Your task to perform on an android device: Show the shopping cart on costco. Search for lenovo thinkpad on costco, select the first entry, and add it to the cart. Image 0: 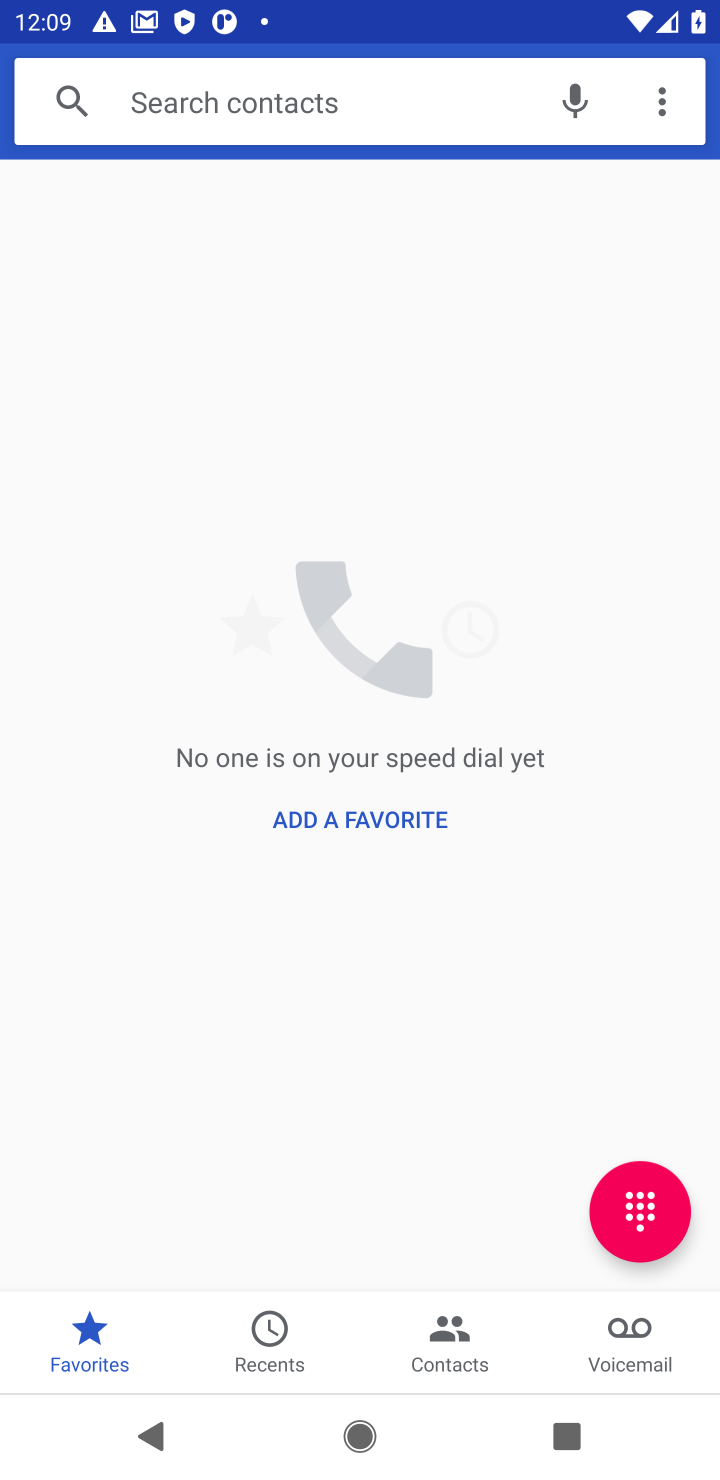
Step 0: press home button
Your task to perform on an android device: Show the shopping cart on costco. Search for lenovo thinkpad on costco, select the first entry, and add it to the cart. Image 1: 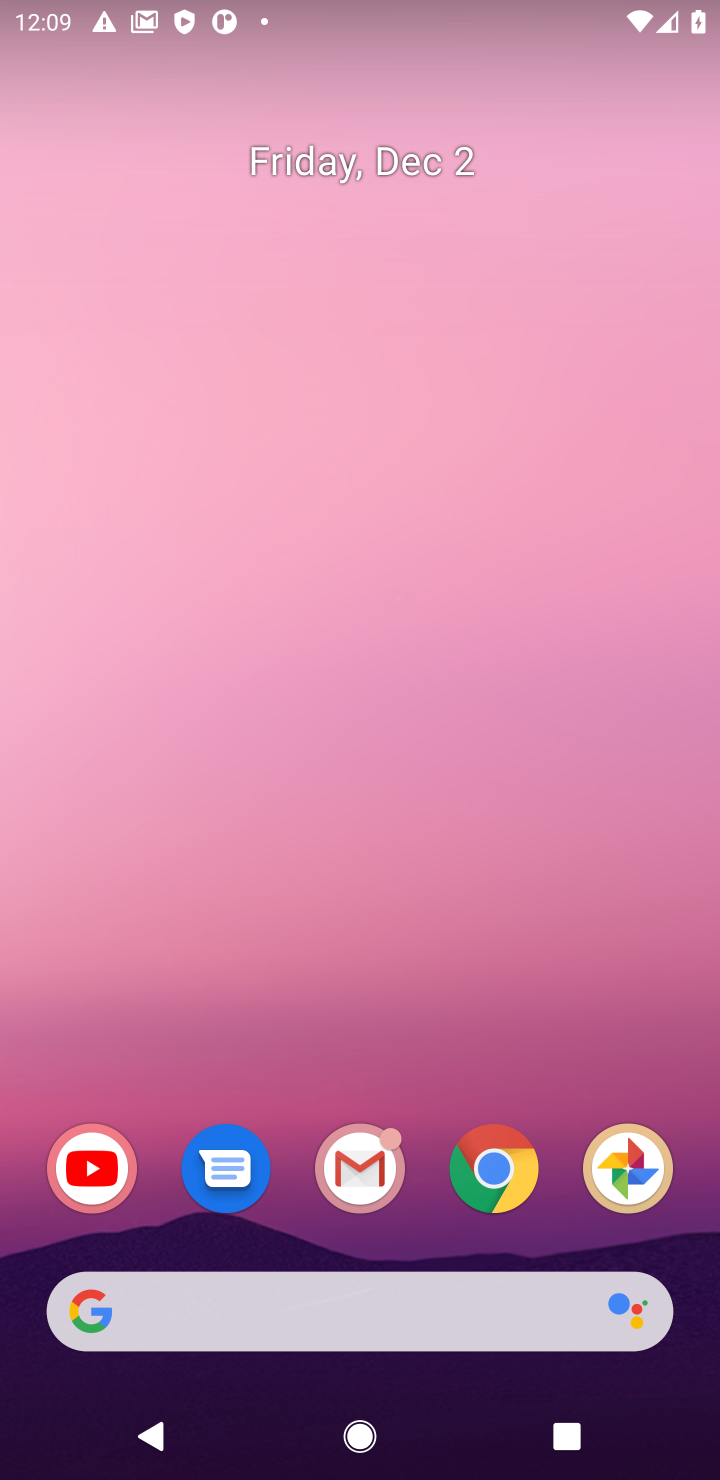
Step 1: click (518, 1168)
Your task to perform on an android device: Show the shopping cart on costco. Search for lenovo thinkpad on costco, select the first entry, and add it to the cart. Image 2: 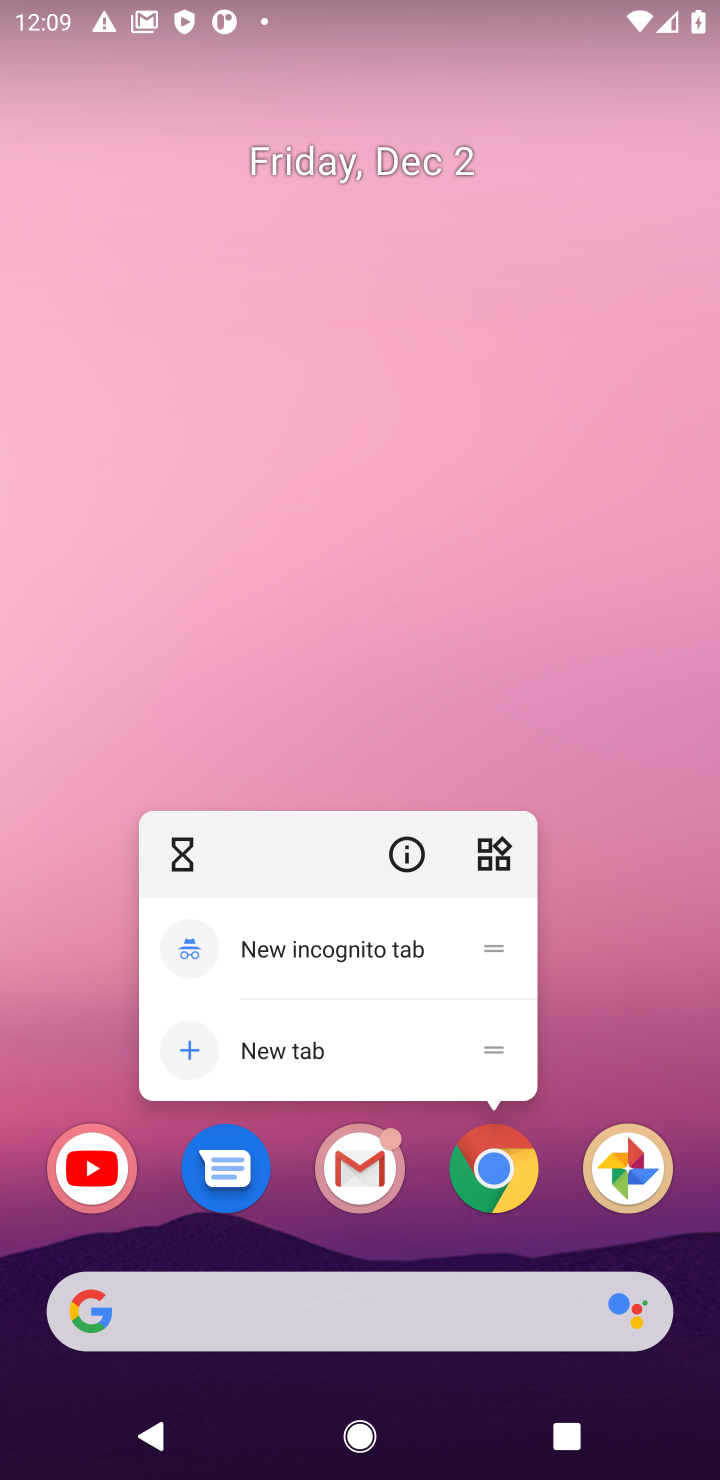
Step 2: click (508, 1170)
Your task to perform on an android device: Show the shopping cart on costco. Search for lenovo thinkpad on costco, select the first entry, and add it to the cart. Image 3: 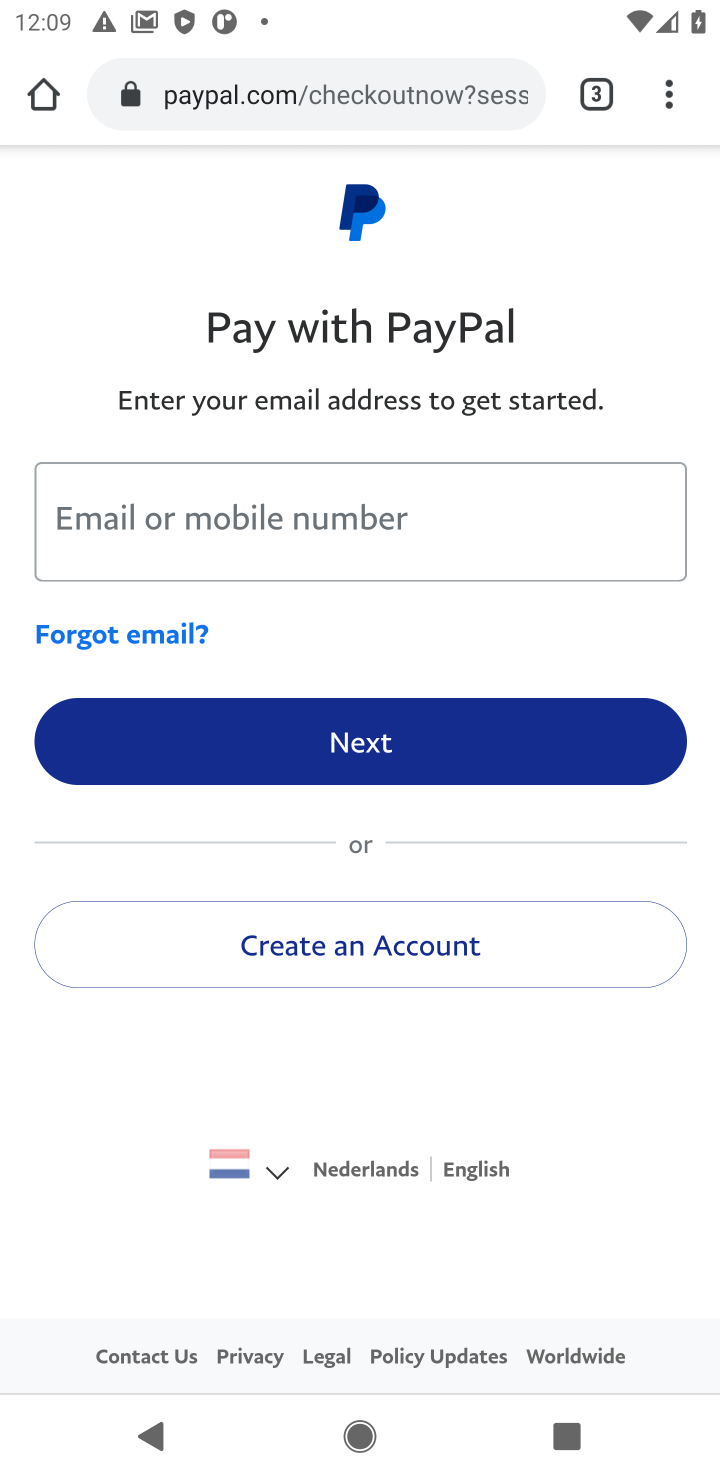
Step 3: click (259, 79)
Your task to perform on an android device: Show the shopping cart on costco. Search for lenovo thinkpad on costco, select the first entry, and add it to the cart. Image 4: 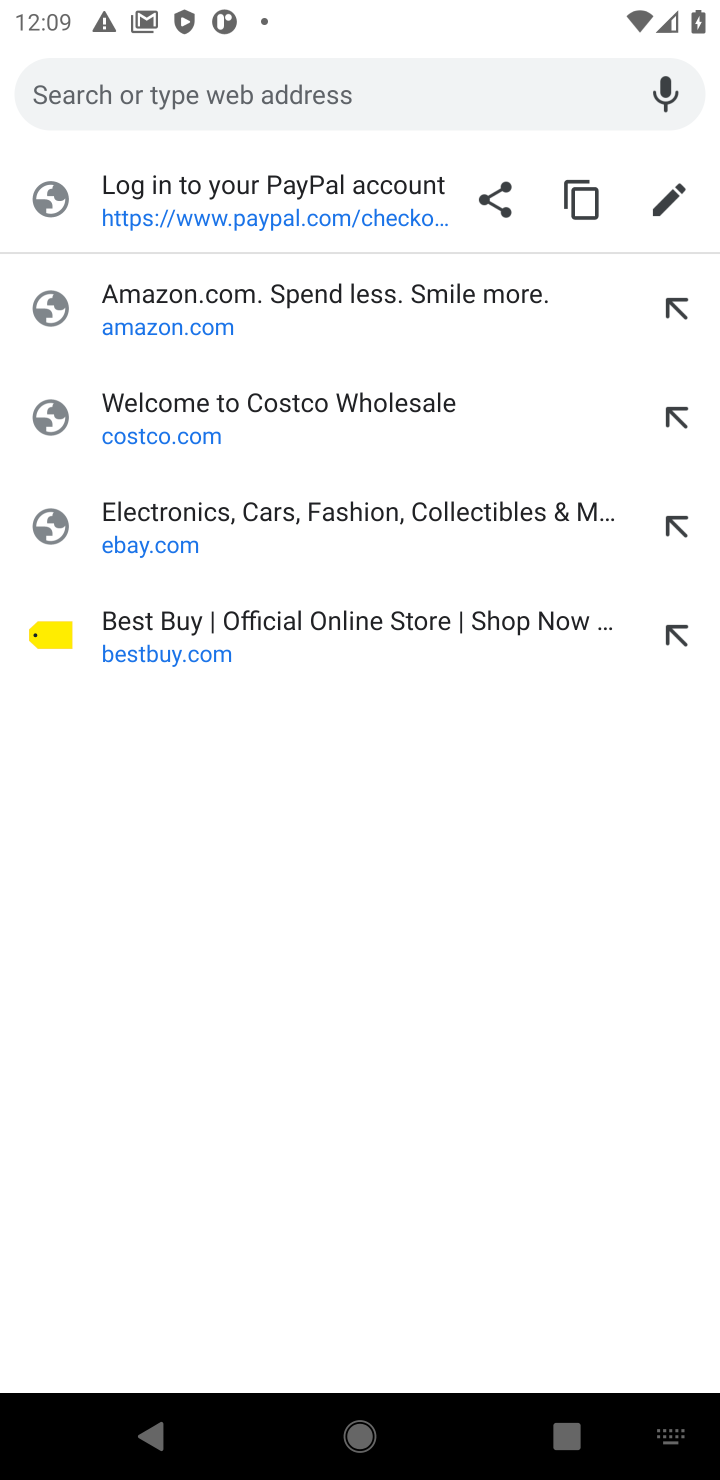
Step 4: click (169, 430)
Your task to perform on an android device: Show the shopping cart on costco. Search for lenovo thinkpad on costco, select the first entry, and add it to the cart. Image 5: 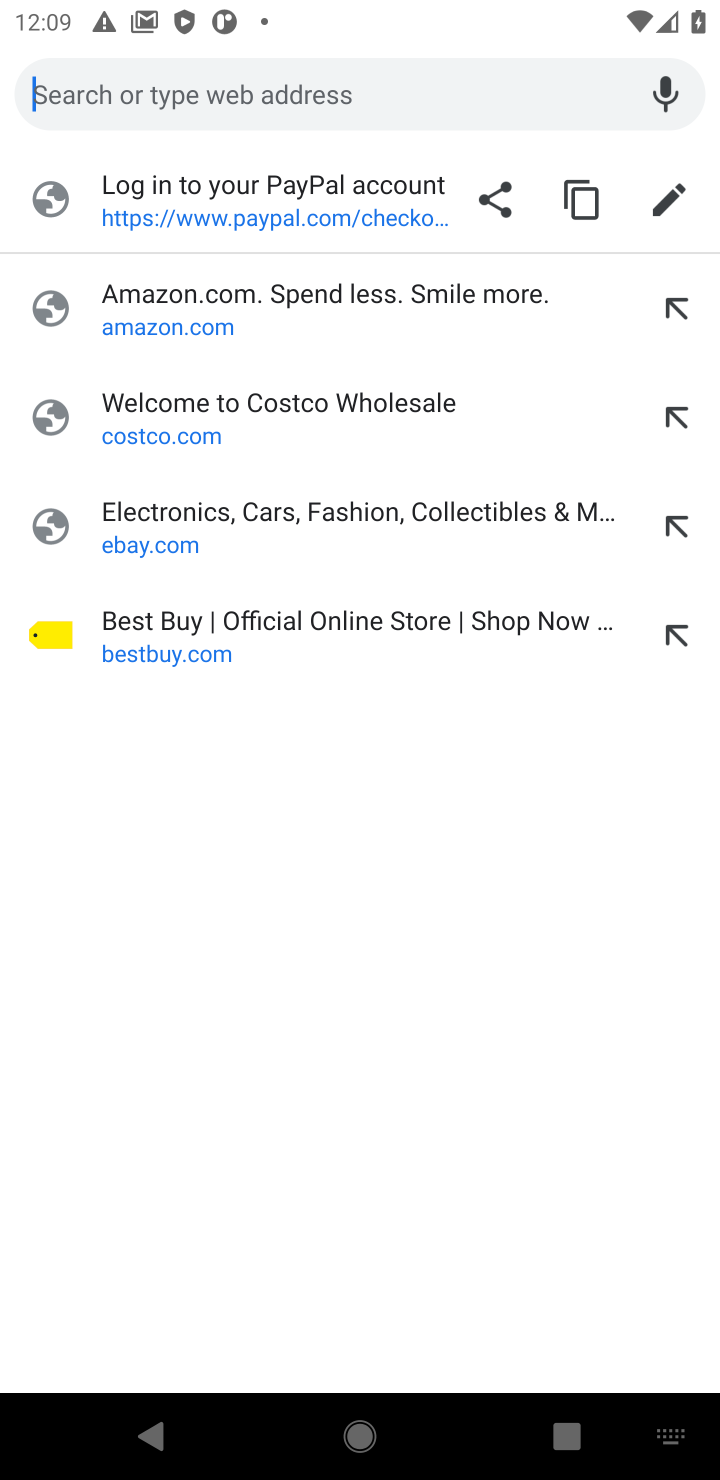
Step 5: click (138, 421)
Your task to perform on an android device: Show the shopping cart on costco. Search for lenovo thinkpad on costco, select the first entry, and add it to the cart. Image 6: 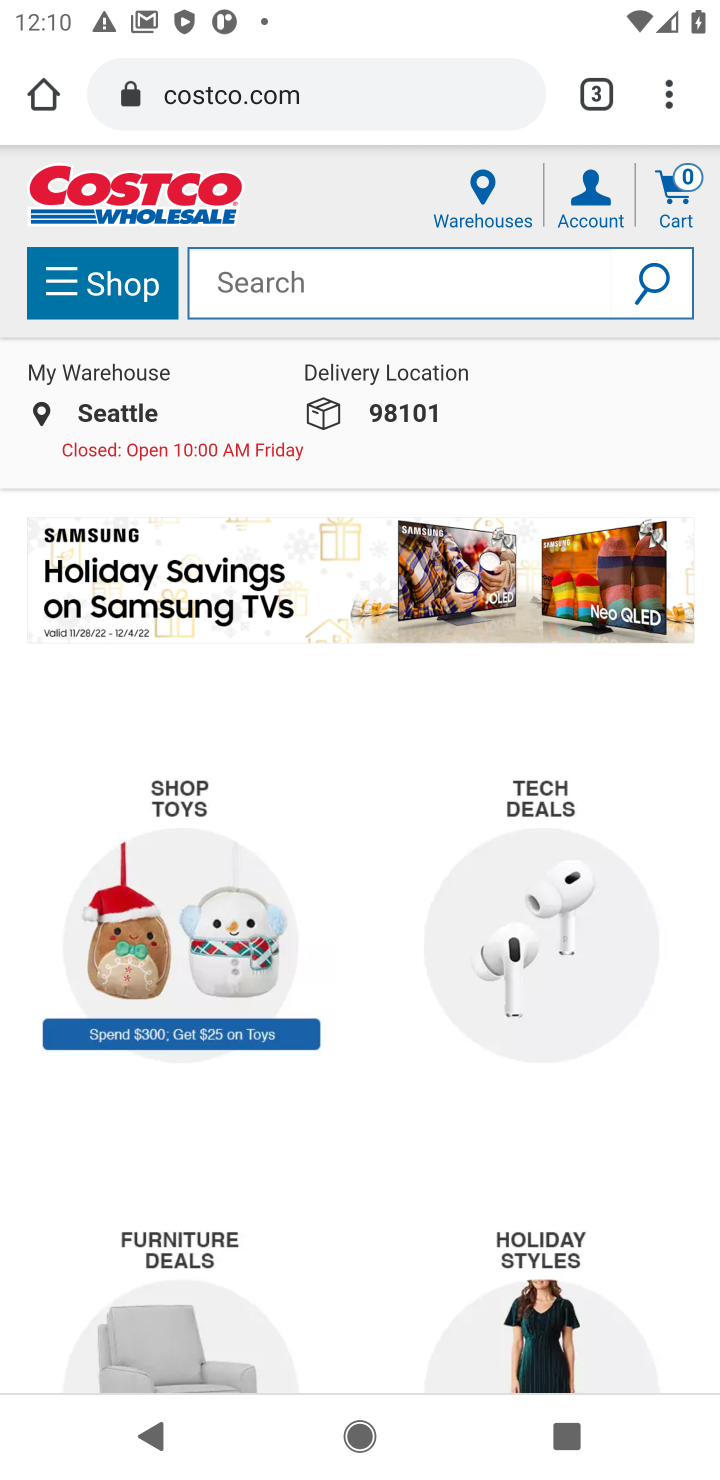
Step 6: click (683, 198)
Your task to perform on an android device: Show the shopping cart on costco. Search for lenovo thinkpad on costco, select the first entry, and add it to the cart. Image 7: 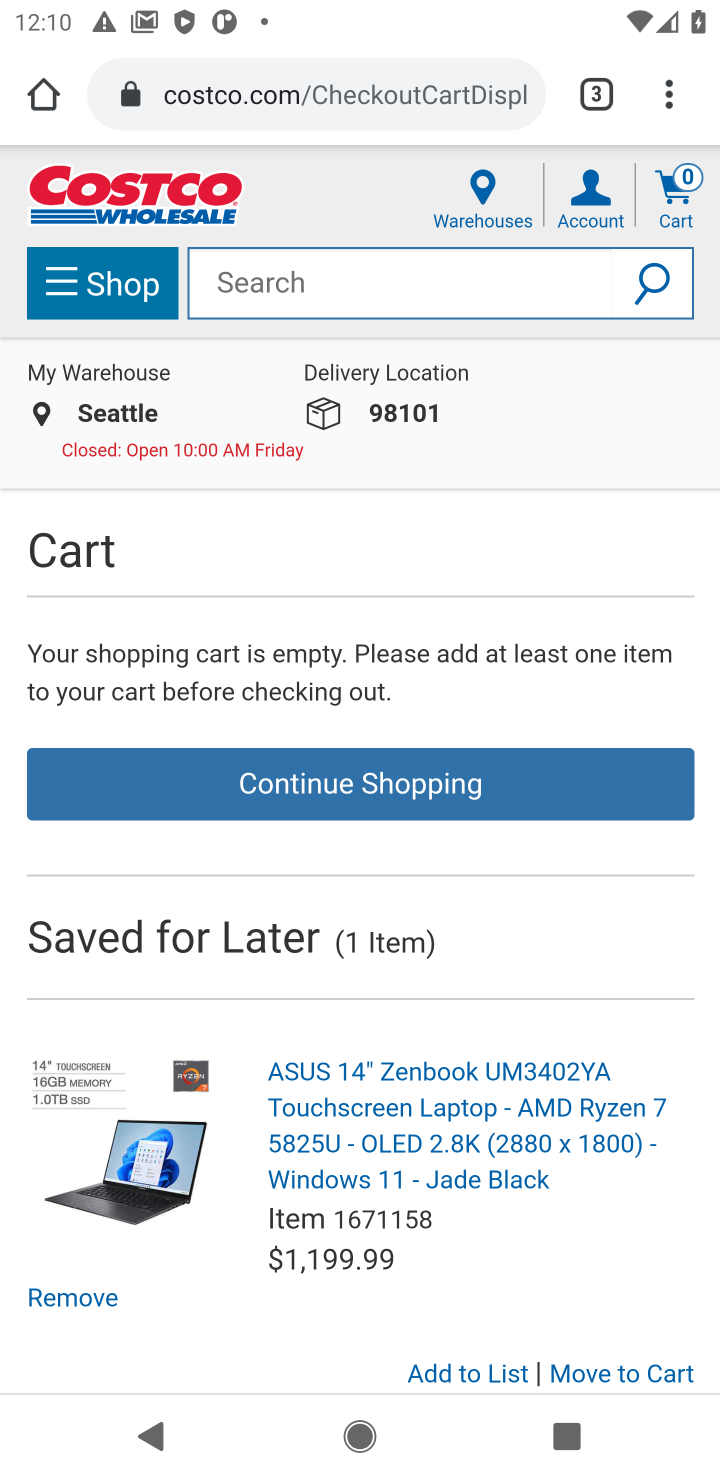
Step 7: click (268, 294)
Your task to perform on an android device: Show the shopping cart on costco. Search for lenovo thinkpad on costco, select the first entry, and add it to the cart. Image 8: 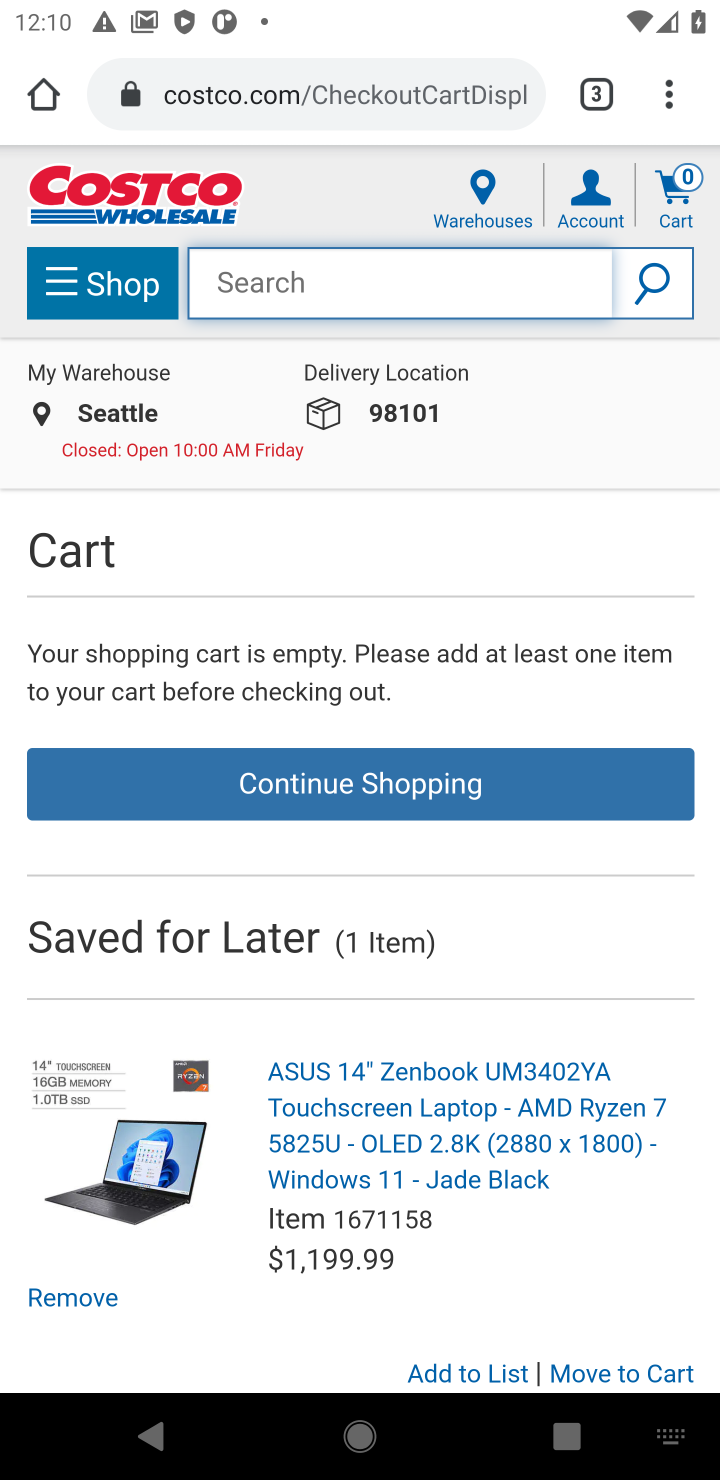
Step 8: type " lenovo thinkpad"
Your task to perform on an android device: Show the shopping cart on costco. Search for lenovo thinkpad on costco, select the first entry, and add it to the cart. Image 9: 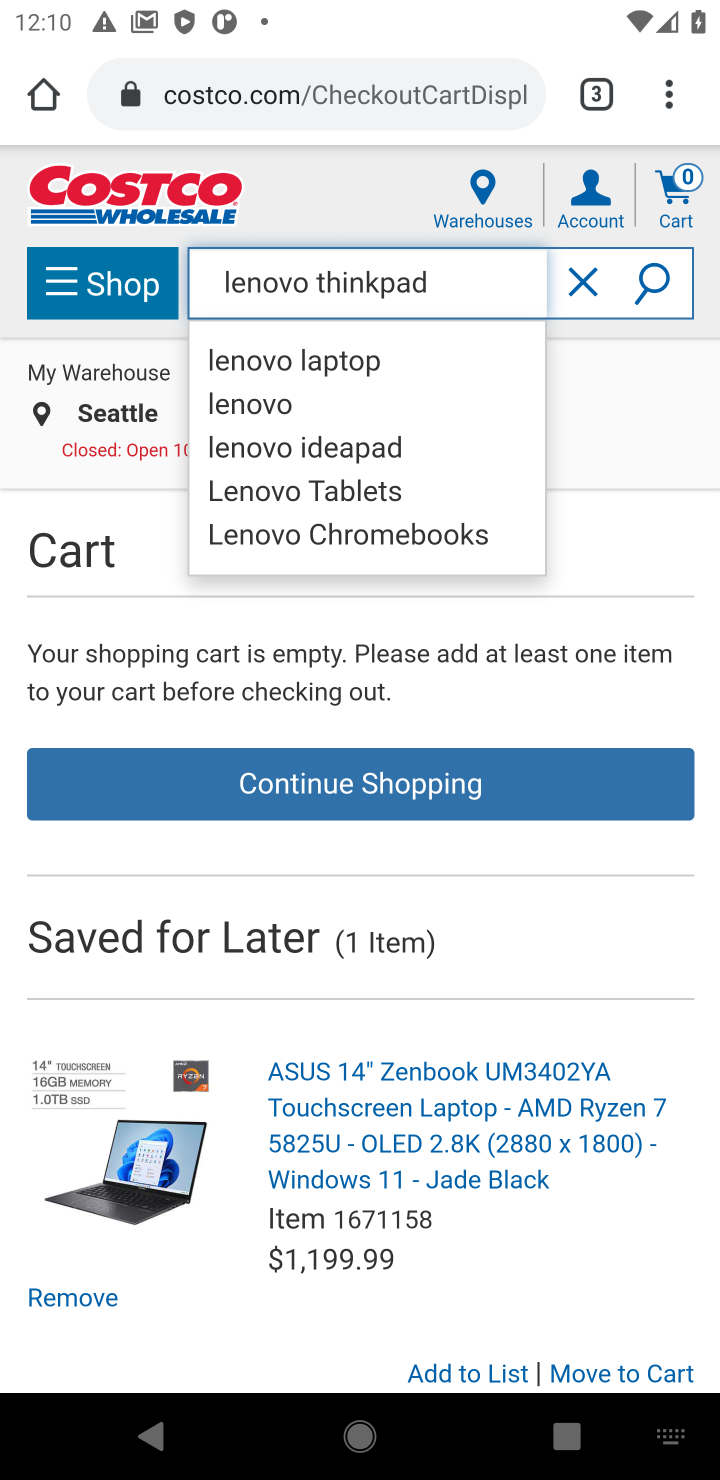
Step 9: click (659, 289)
Your task to perform on an android device: Show the shopping cart on costco. Search for lenovo thinkpad on costco, select the first entry, and add it to the cart. Image 10: 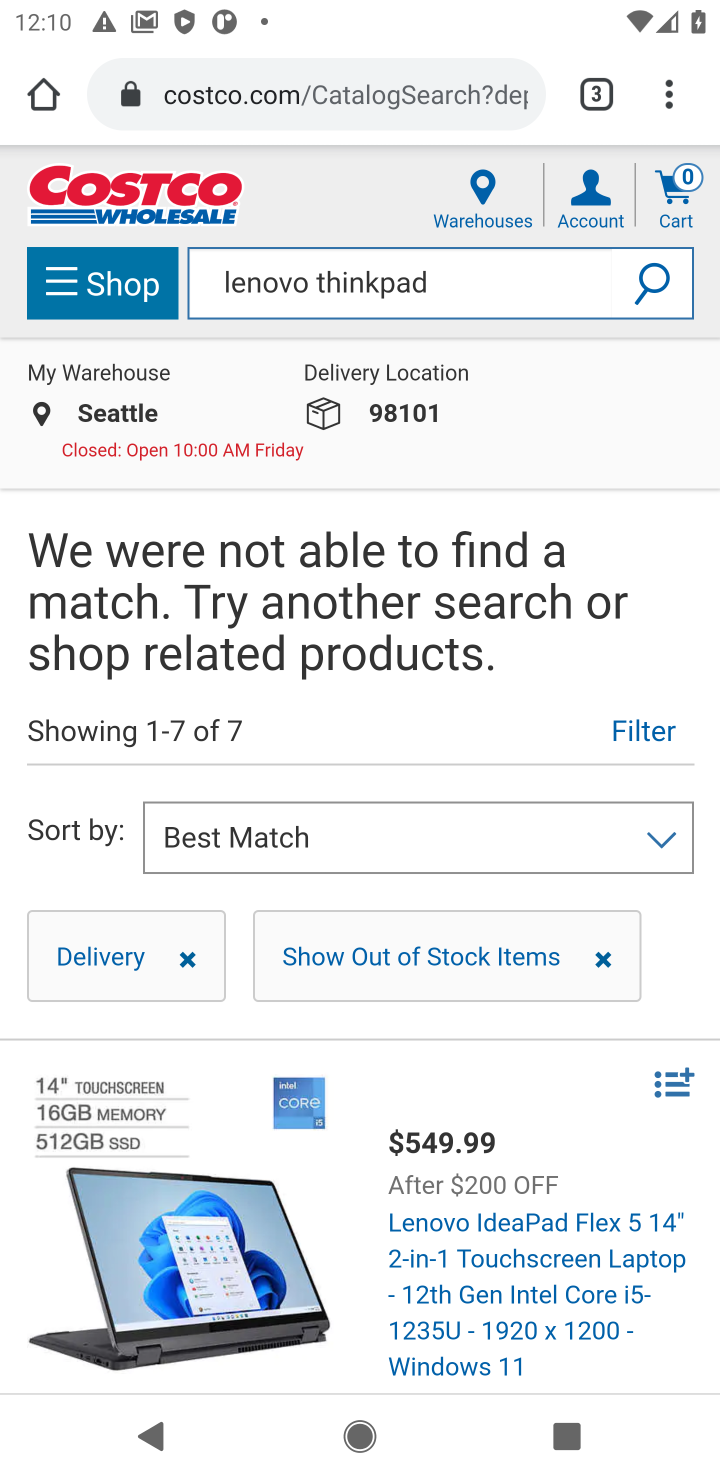
Step 10: task complete